Your task to perform on an android device: snooze an email in the gmail app Image 0: 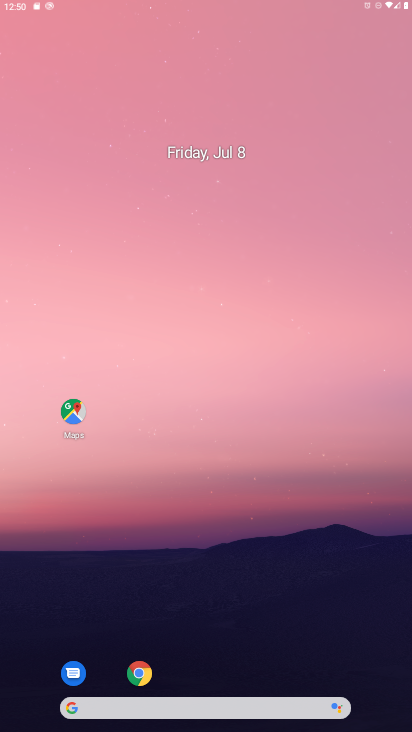
Step 0: drag from (398, 703) to (343, 252)
Your task to perform on an android device: snooze an email in the gmail app Image 1: 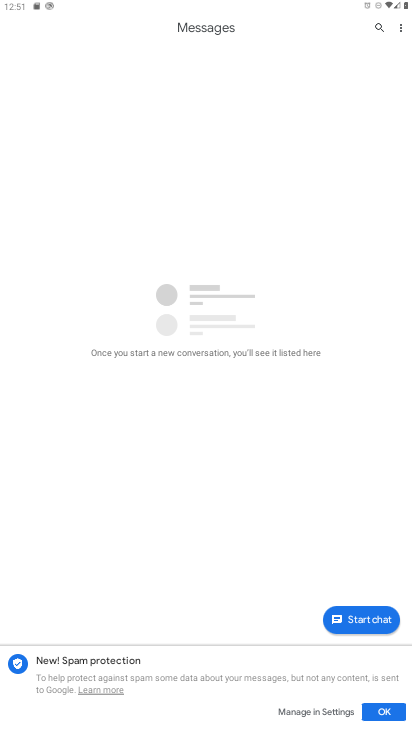
Step 1: press home button
Your task to perform on an android device: snooze an email in the gmail app Image 2: 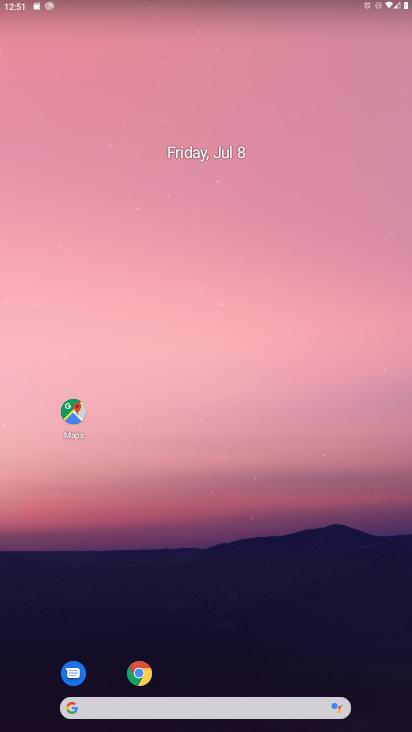
Step 2: drag from (394, 703) to (330, 71)
Your task to perform on an android device: snooze an email in the gmail app Image 3: 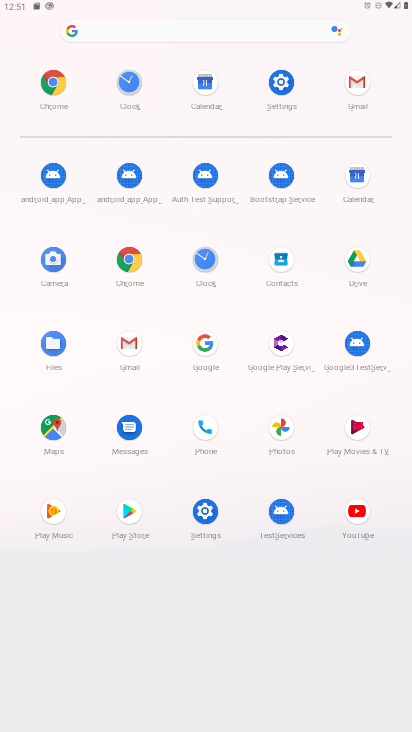
Step 3: click (135, 336)
Your task to perform on an android device: snooze an email in the gmail app Image 4: 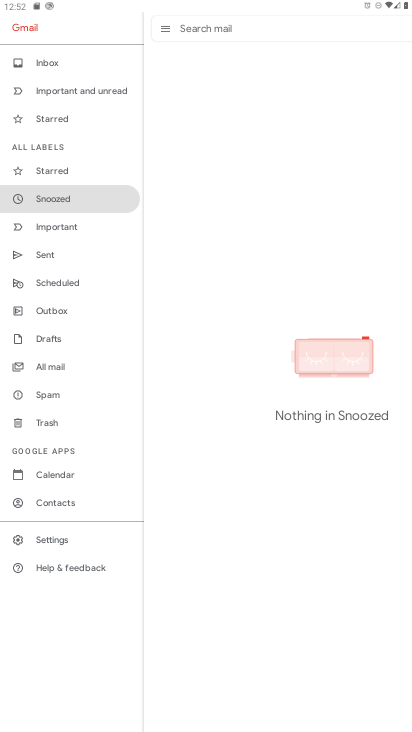
Step 4: click (43, 55)
Your task to perform on an android device: snooze an email in the gmail app Image 5: 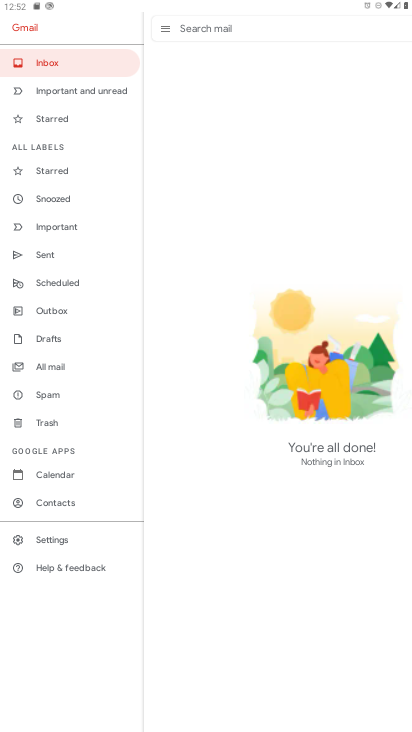
Step 5: task complete